Your task to perform on an android device: open chrome privacy settings Image 0: 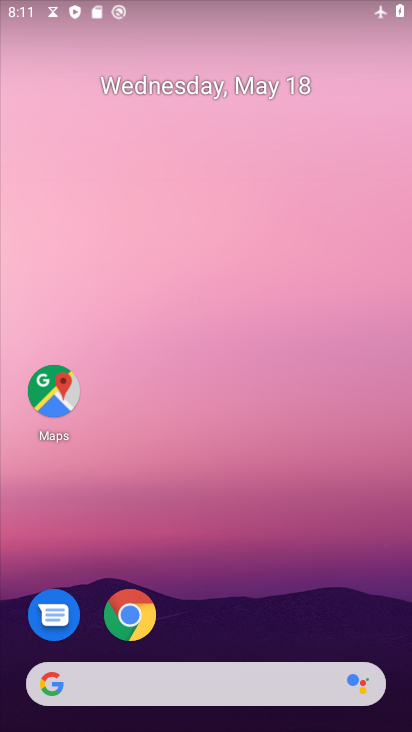
Step 0: click (134, 613)
Your task to perform on an android device: open chrome privacy settings Image 1: 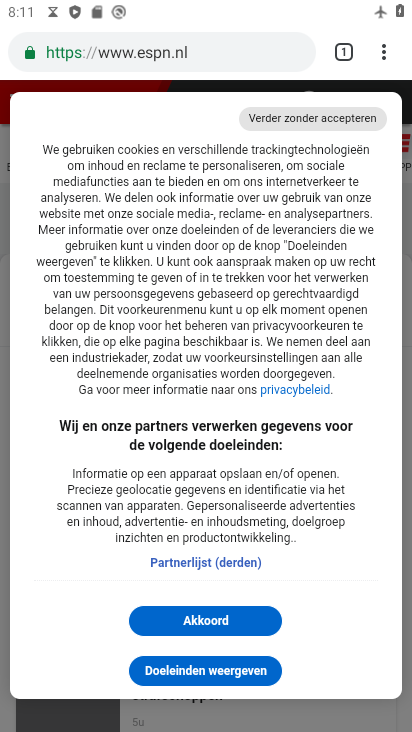
Step 1: click (391, 51)
Your task to perform on an android device: open chrome privacy settings Image 2: 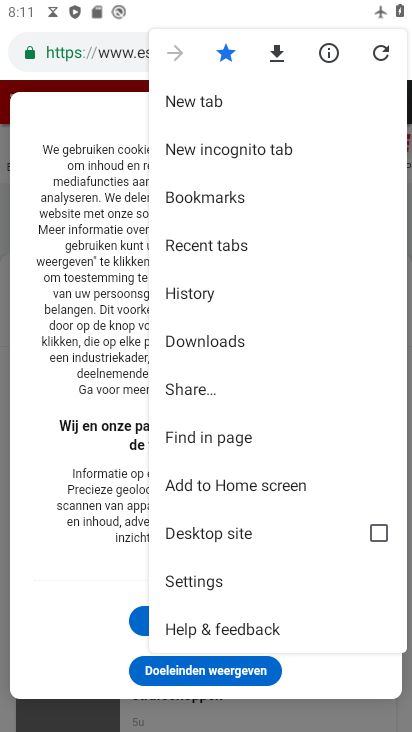
Step 2: click (199, 581)
Your task to perform on an android device: open chrome privacy settings Image 3: 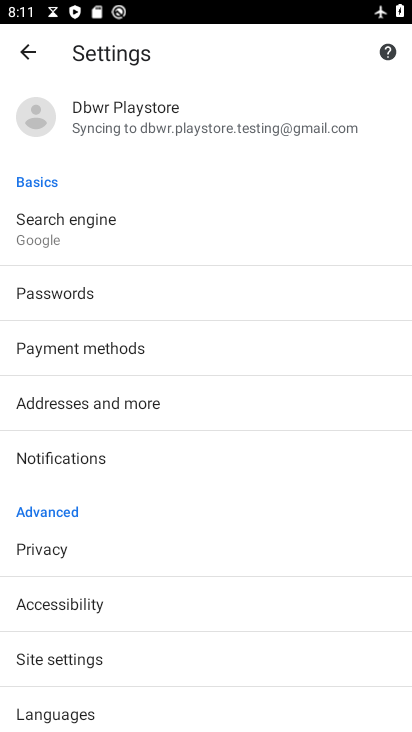
Step 3: click (61, 557)
Your task to perform on an android device: open chrome privacy settings Image 4: 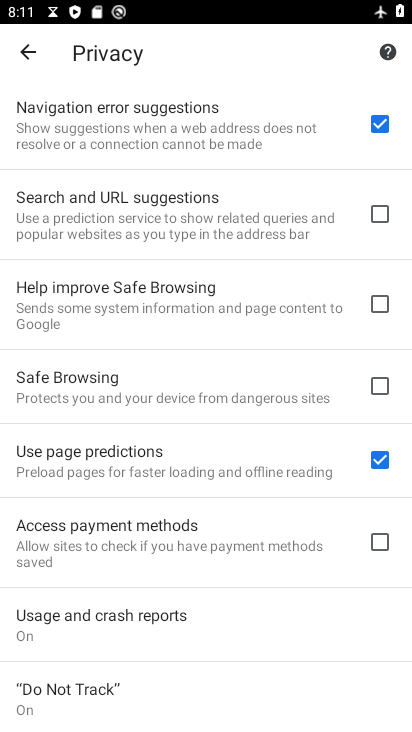
Step 4: task complete